Your task to perform on an android device: What's on my calendar today? Image 0: 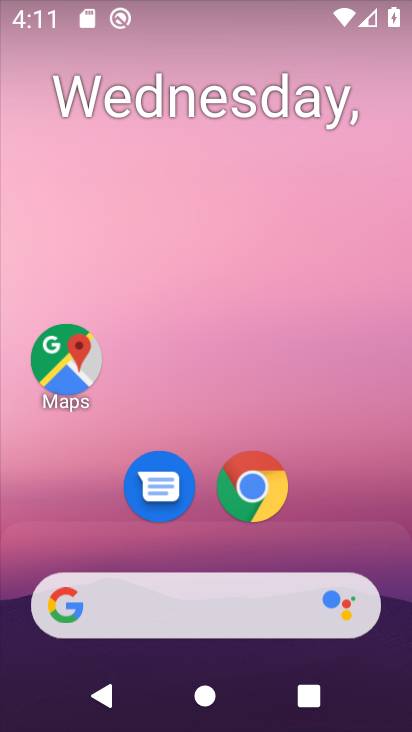
Step 0: drag from (410, 527) to (407, 194)
Your task to perform on an android device: What's on my calendar today? Image 1: 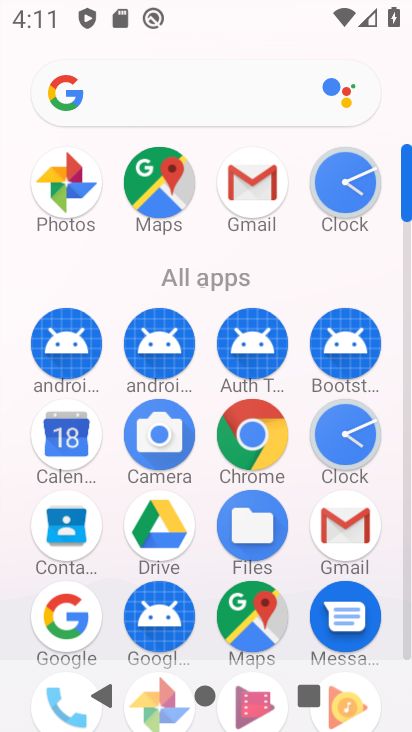
Step 1: click (61, 450)
Your task to perform on an android device: What's on my calendar today? Image 2: 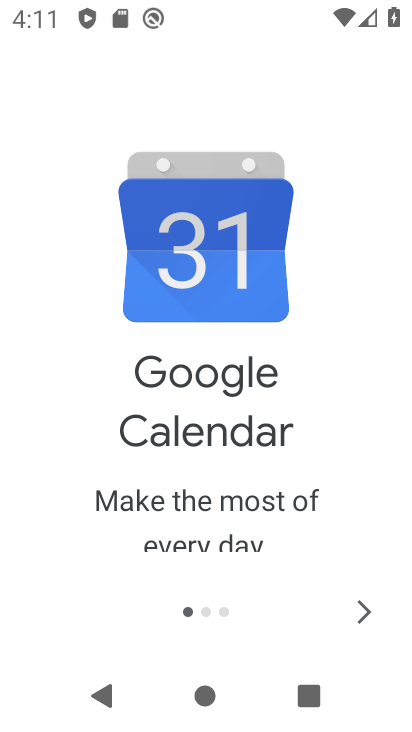
Step 2: click (353, 600)
Your task to perform on an android device: What's on my calendar today? Image 3: 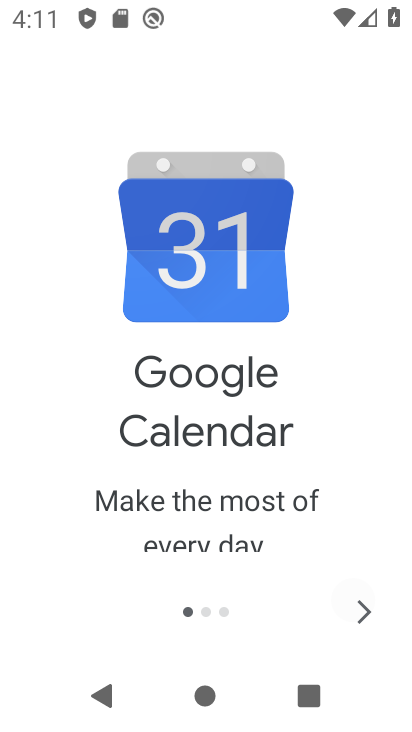
Step 3: click (355, 602)
Your task to perform on an android device: What's on my calendar today? Image 4: 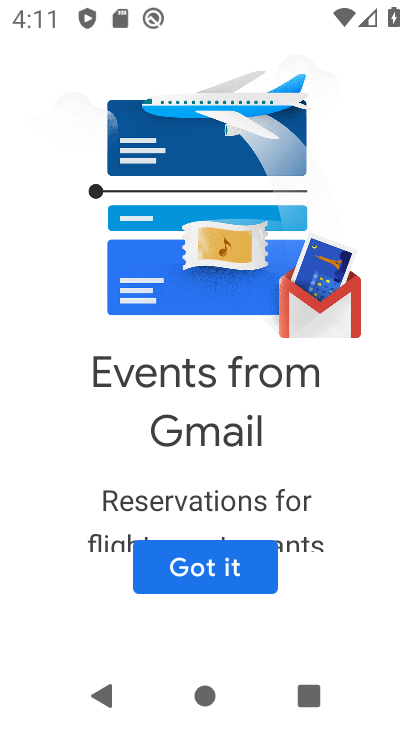
Step 4: click (226, 573)
Your task to perform on an android device: What's on my calendar today? Image 5: 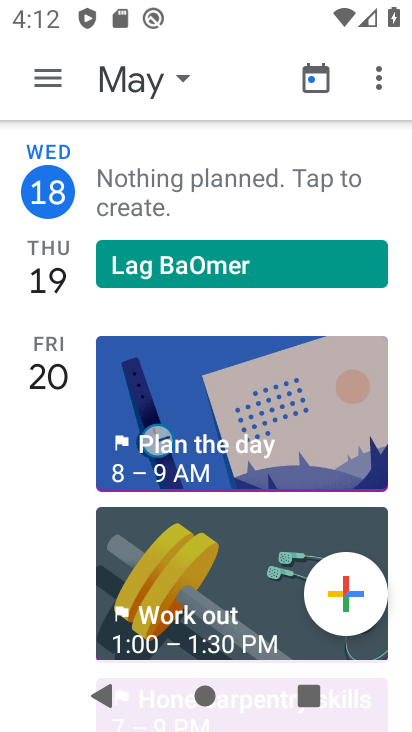
Step 5: task complete